Your task to perform on an android device: Open calendar and show me the second week of next month Image 0: 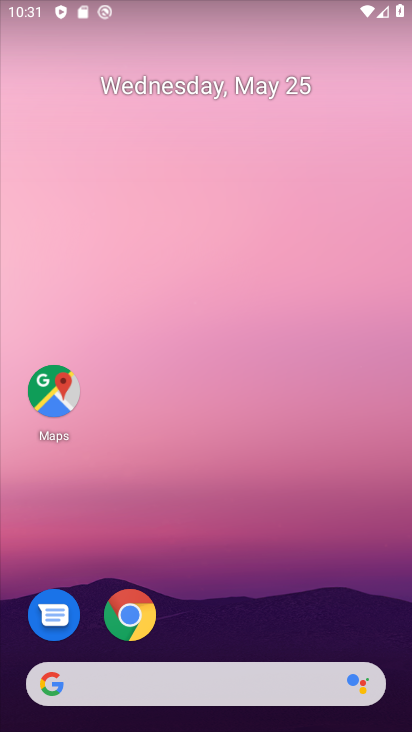
Step 0: press home button
Your task to perform on an android device: Open calendar and show me the second week of next month Image 1: 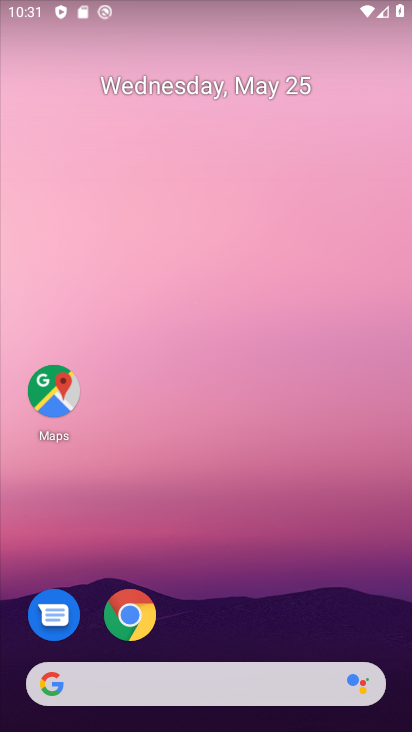
Step 1: drag from (273, 534) to (239, 162)
Your task to perform on an android device: Open calendar and show me the second week of next month Image 2: 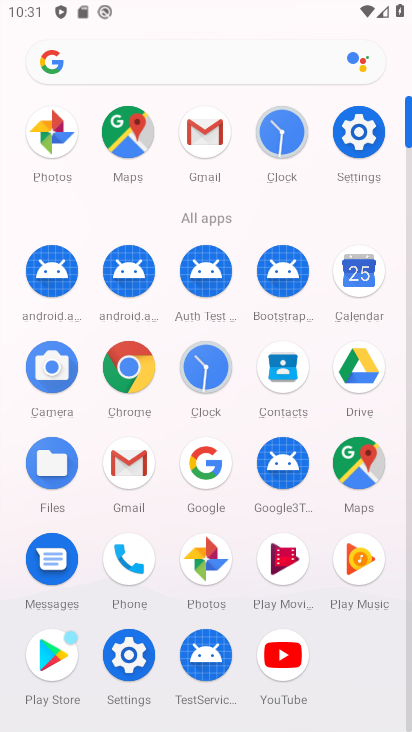
Step 2: click (364, 262)
Your task to perform on an android device: Open calendar and show me the second week of next month Image 3: 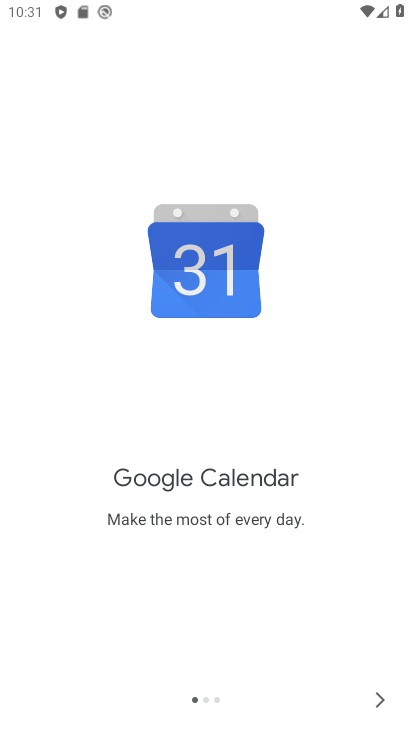
Step 3: click (379, 699)
Your task to perform on an android device: Open calendar and show me the second week of next month Image 4: 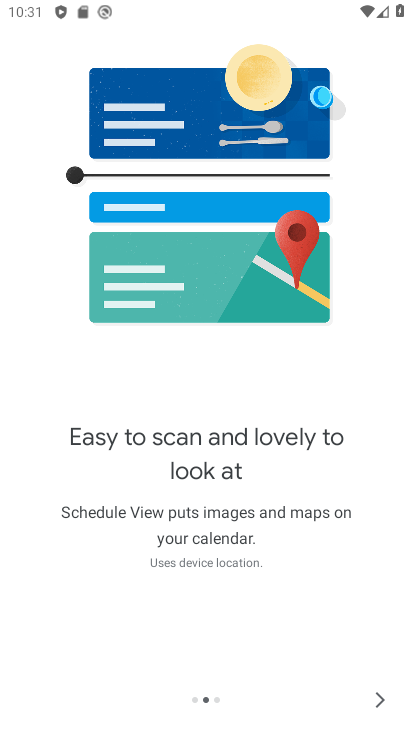
Step 4: click (379, 699)
Your task to perform on an android device: Open calendar and show me the second week of next month Image 5: 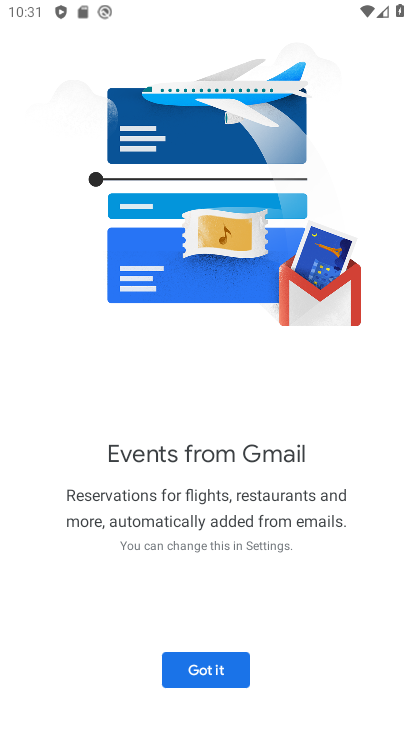
Step 5: click (225, 672)
Your task to perform on an android device: Open calendar and show me the second week of next month Image 6: 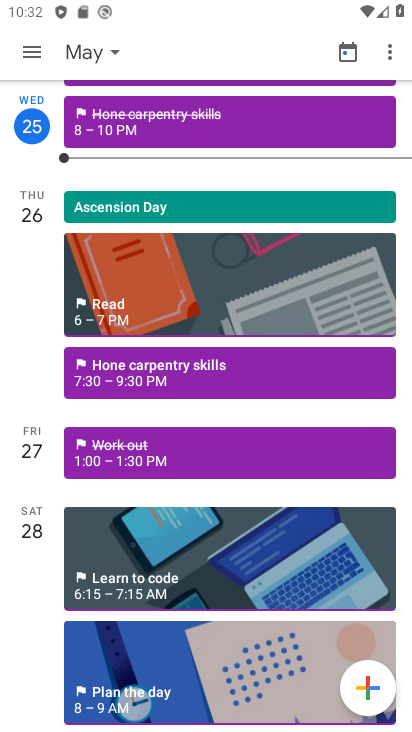
Step 6: drag from (23, 696) to (57, 220)
Your task to perform on an android device: Open calendar and show me the second week of next month Image 7: 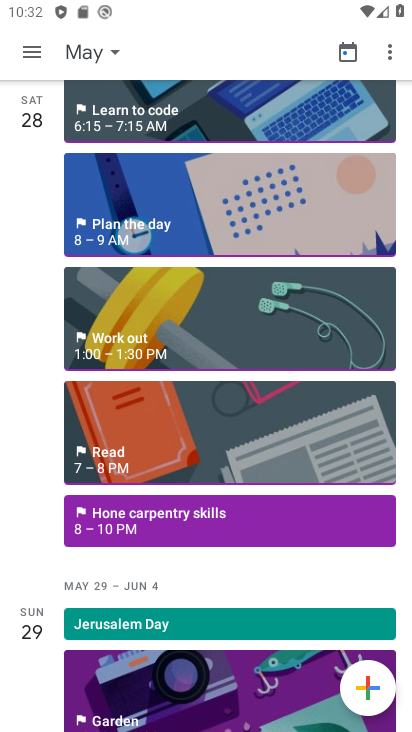
Step 7: drag from (26, 708) to (123, 182)
Your task to perform on an android device: Open calendar and show me the second week of next month Image 8: 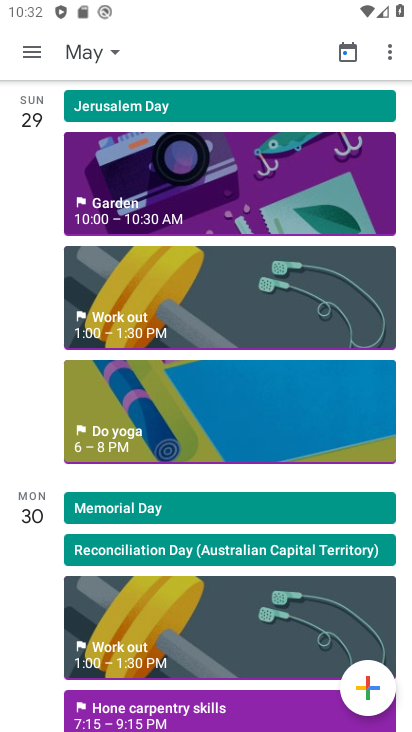
Step 8: drag from (40, 717) to (61, 213)
Your task to perform on an android device: Open calendar and show me the second week of next month Image 9: 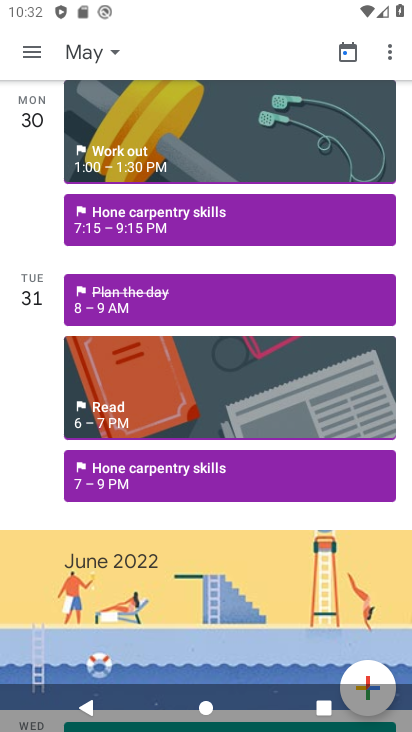
Step 9: drag from (64, 610) to (101, 189)
Your task to perform on an android device: Open calendar and show me the second week of next month Image 10: 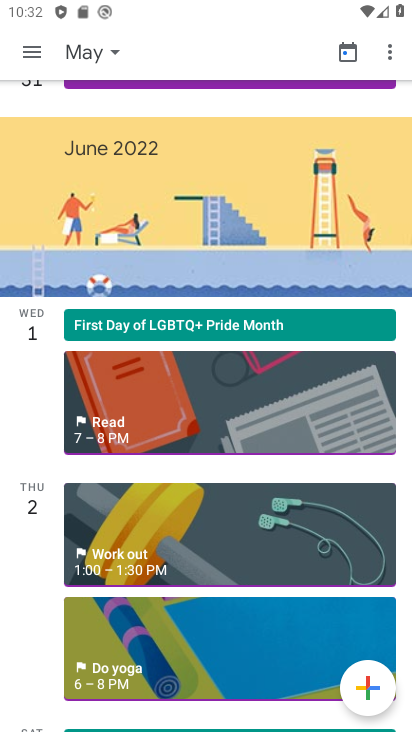
Step 10: drag from (49, 438) to (91, 134)
Your task to perform on an android device: Open calendar and show me the second week of next month Image 11: 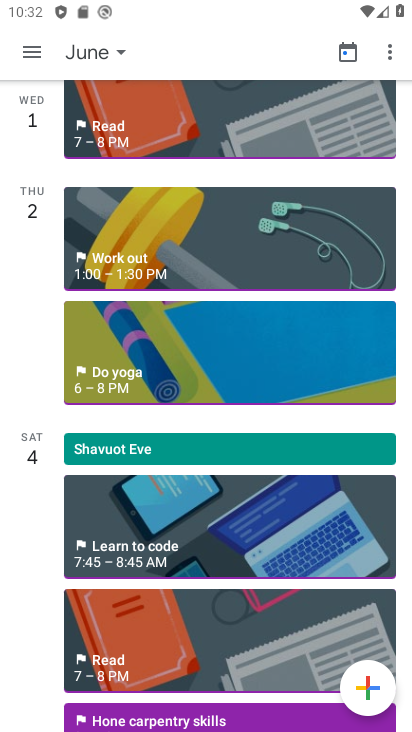
Step 11: drag from (32, 692) to (142, 189)
Your task to perform on an android device: Open calendar and show me the second week of next month Image 12: 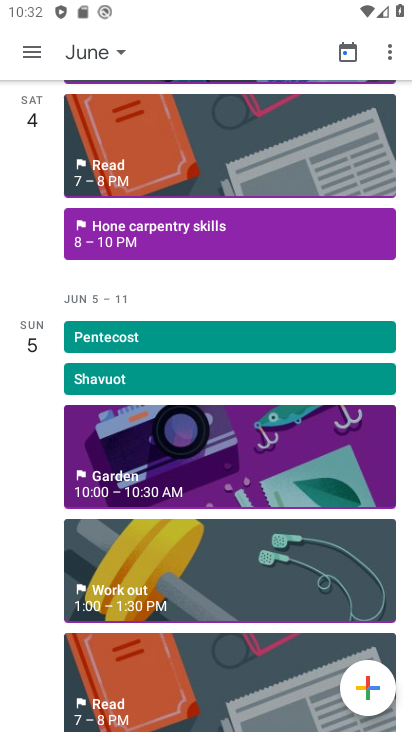
Step 12: drag from (25, 709) to (195, 133)
Your task to perform on an android device: Open calendar and show me the second week of next month Image 13: 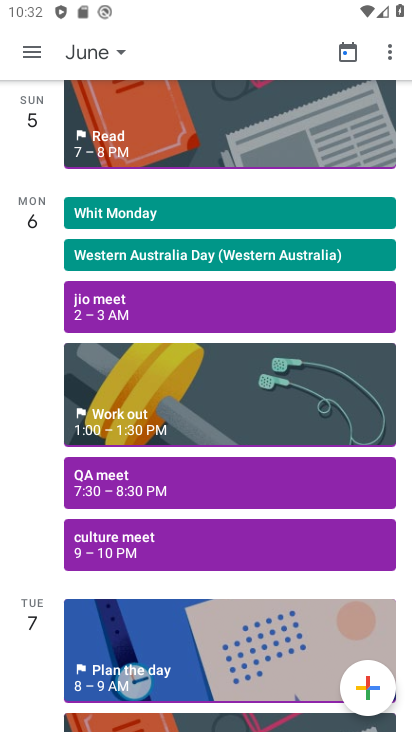
Step 13: drag from (4, 695) to (189, 154)
Your task to perform on an android device: Open calendar and show me the second week of next month Image 14: 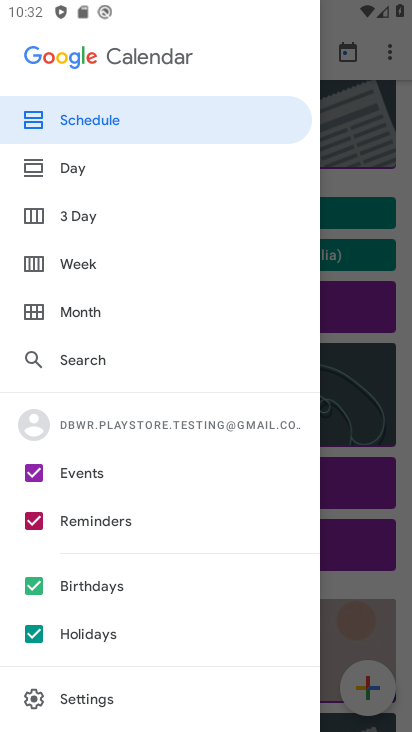
Step 14: click (370, 458)
Your task to perform on an android device: Open calendar and show me the second week of next month Image 15: 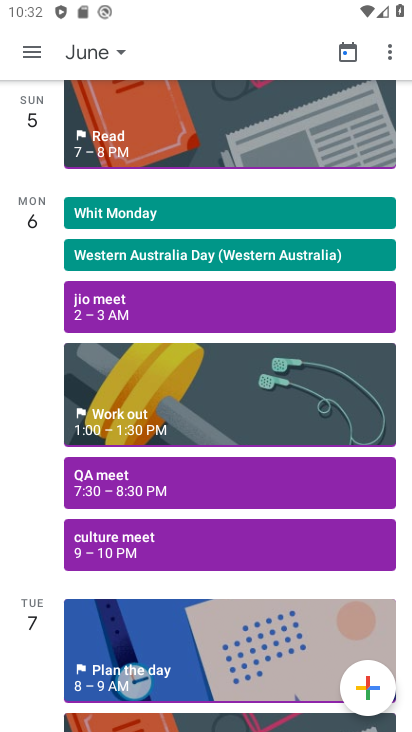
Step 15: task complete